Your task to perform on an android device: Search for a 3D printer on aliexpress. Image 0: 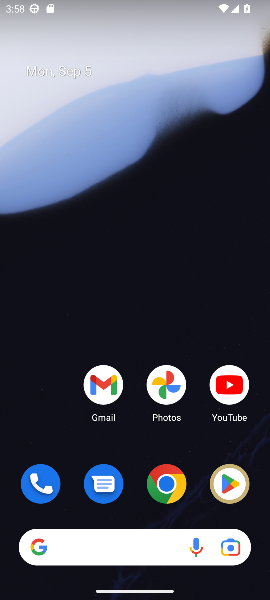
Step 0: click (163, 486)
Your task to perform on an android device: Search for a 3D printer on aliexpress. Image 1: 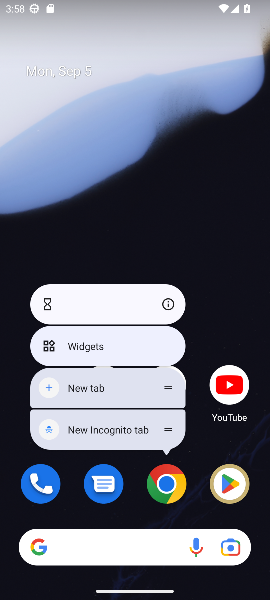
Step 1: click (163, 486)
Your task to perform on an android device: Search for a 3D printer on aliexpress. Image 2: 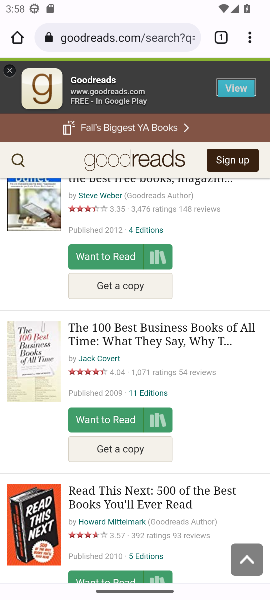
Step 2: click (90, 31)
Your task to perform on an android device: Search for a 3D printer on aliexpress. Image 3: 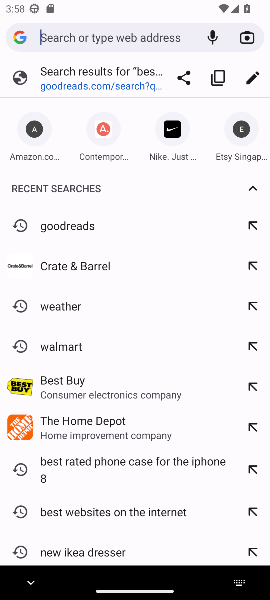
Step 3: type "aliexpress"
Your task to perform on an android device: Search for a 3D printer on aliexpress. Image 4: 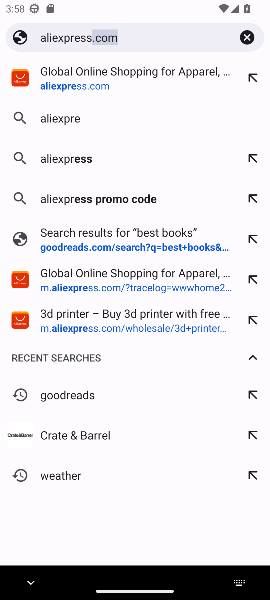
Step 4: press enter
Your task to perform on an android device: Search for a 3D printer on aliexpress. Image 5: 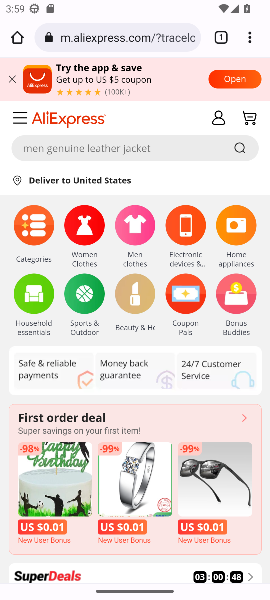
Step 5: click (129, 144)
Your task to perform on an android device: Search for a 3D printer on aliexpress. Image 6: 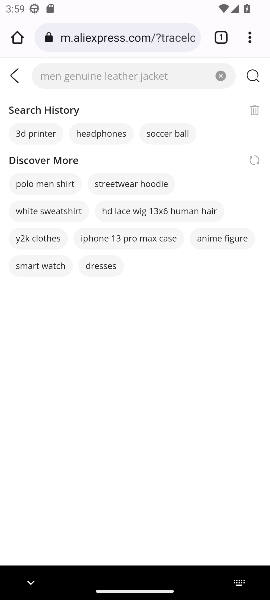
Step 6: type "3D printer"
Your task to perform on an android device: Search for a 3D printer on aliexpress. Image 7: 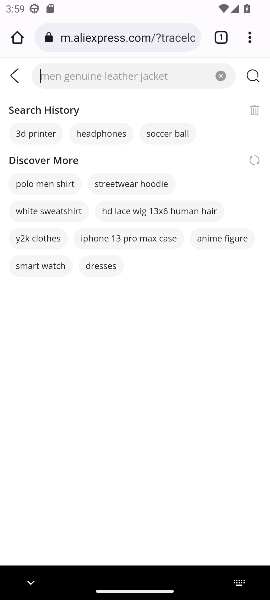
Step 7: press enter
Your task to perform on an android device: Search for a 3D printer on aliexpress. Image 8: 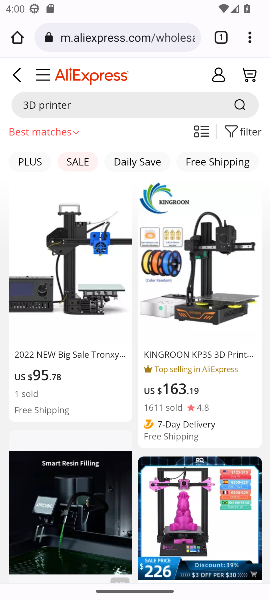
Step 8: task complete